Your task to perform on an android device: What's on my calendar tomorrow? Image 0: 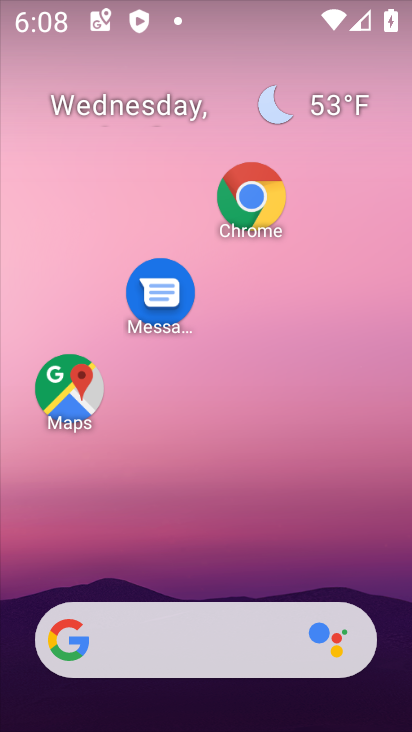
Step 0: drag from (194, 569) to (203, 212)
Your task to perform on an android device: What's on my calendar tomorrow? Image 1: 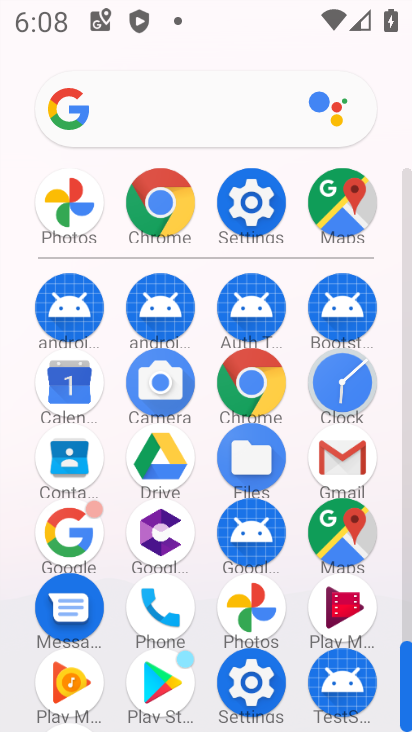
Step 1: drag from (219, 607) to (219, 454)
Your task to perform on an android device: What's on my calendar tomorrow? Image 2: 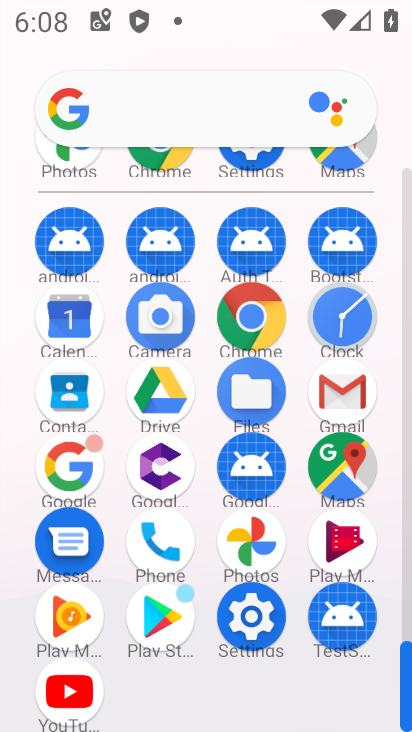
Step 2: click (59, 331)
Your task to perform on an android device: What's on my calendar tomorrow? Image 3: 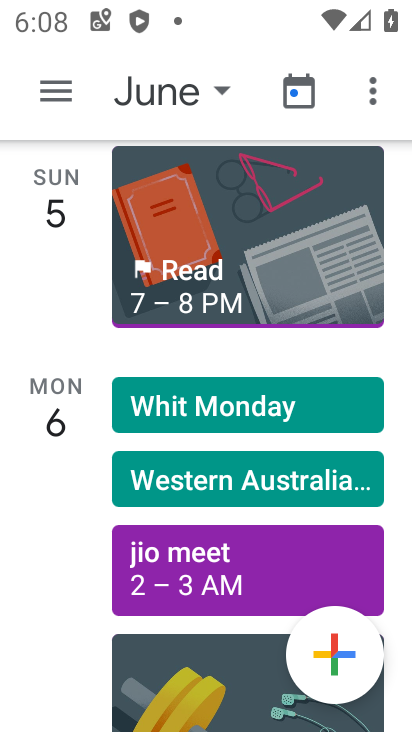
Step 3: task complete